Your task to perform on an android device: Open Maps and search for coffee Image 0: 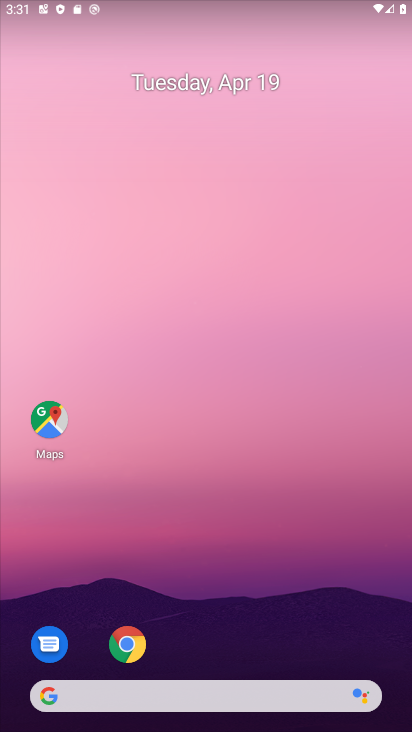
Step 0: drag from (235, 650) to (331, 123)
Your task to perform on an android device: Open Maps and search for coffee Image 1: 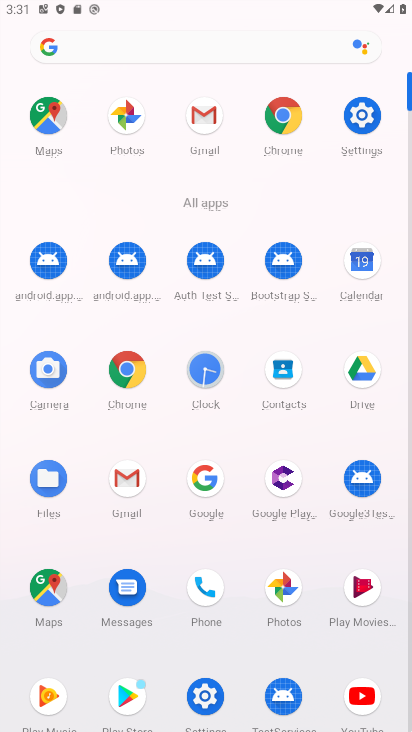
Step 1: click (64, 594)
Your task to perform on an android device: Open Maps and search for coffee Image 2: 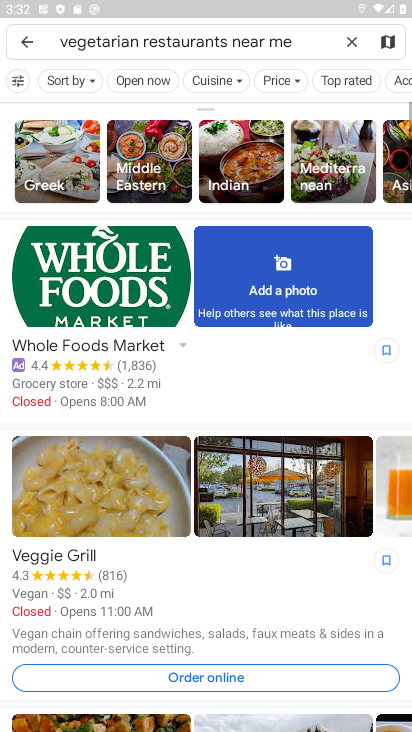
Step 2: click (356, 39)
Your task to perform on an android device: Open Maps and search for coffee Image 3: 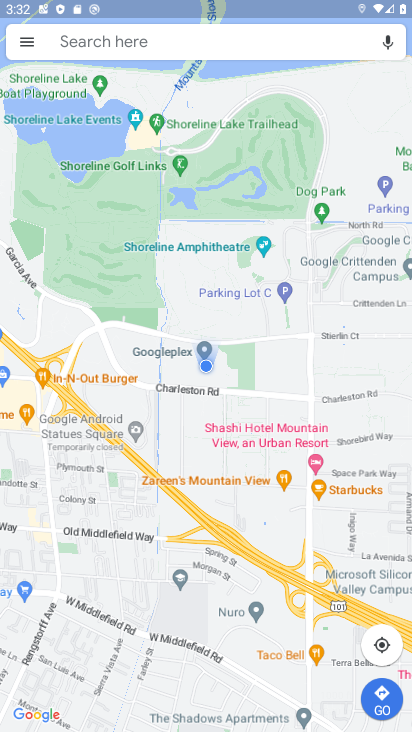
Step 3: click (174, 45)
Your task to perform on an android device: Open Maps and search for coffee Image 4: 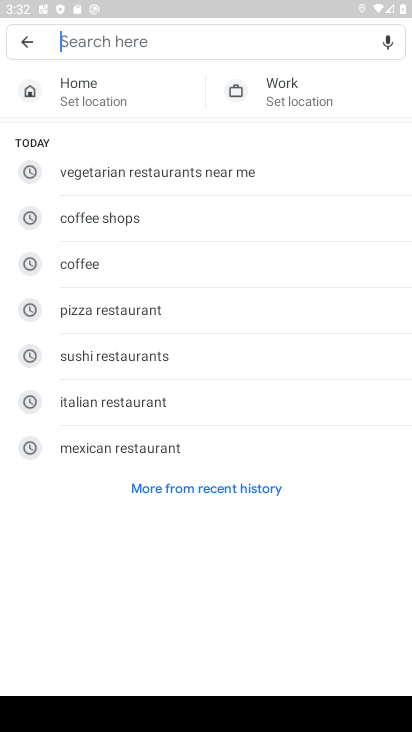
Step 4: type "Coffee "
Your task to perform on an android device: Open Maps and search for coffee Image 5: 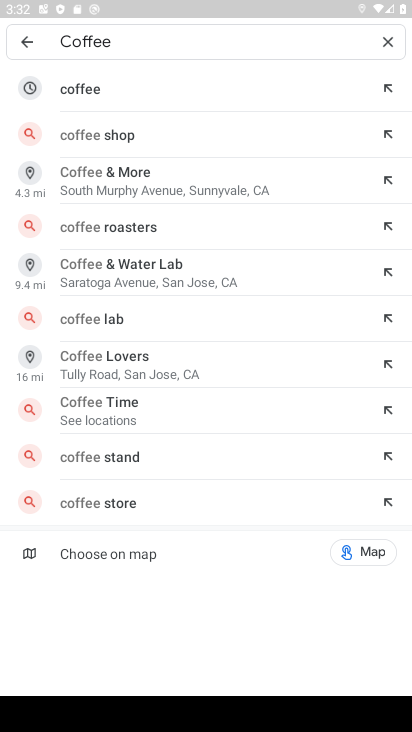
Step 5: click (128, 76)
Your task to perform on an android device: Open Maps and search for coffee Image 6: 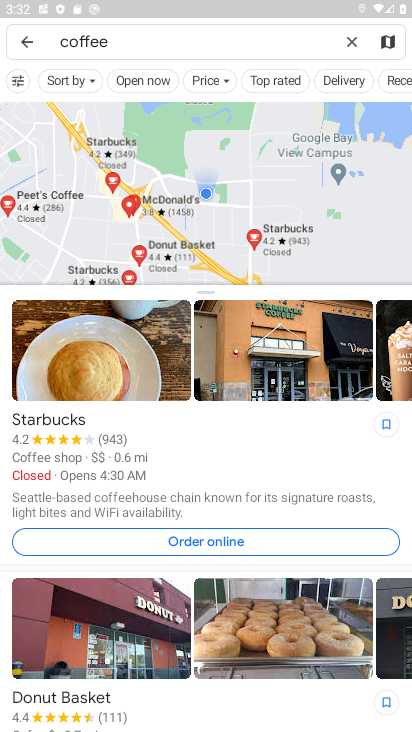
Step 6: task complete